Your task to perform on an android device: Open notification settings Image 0: 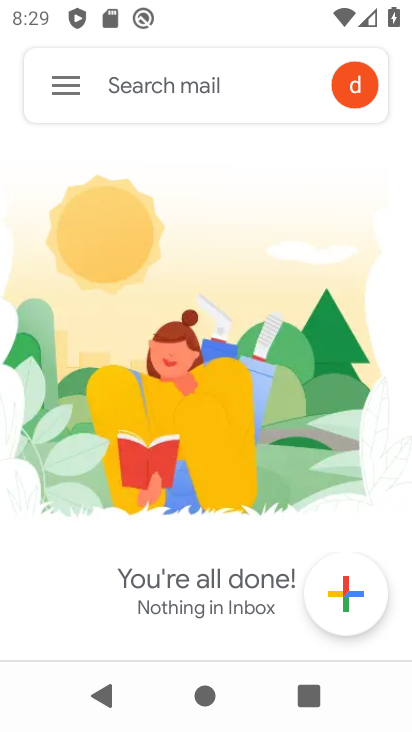
Step 0: press home button
Your task to perform on an android device: Open notification settings Image 1: 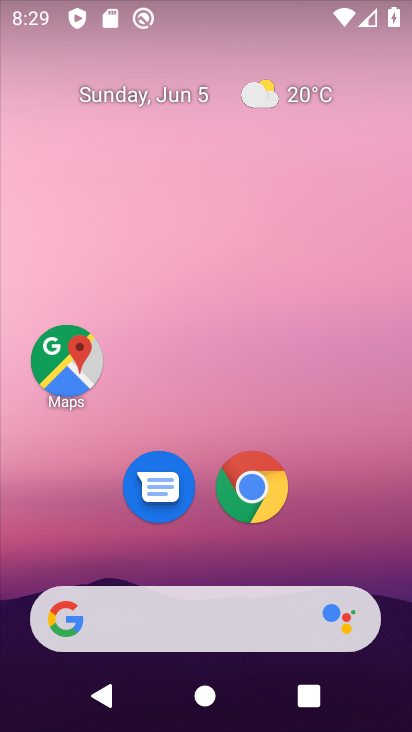
Step 1: drag from (241, 601) to (248, 306)
Your task to perform on an android device: Open notification settings Image 2: 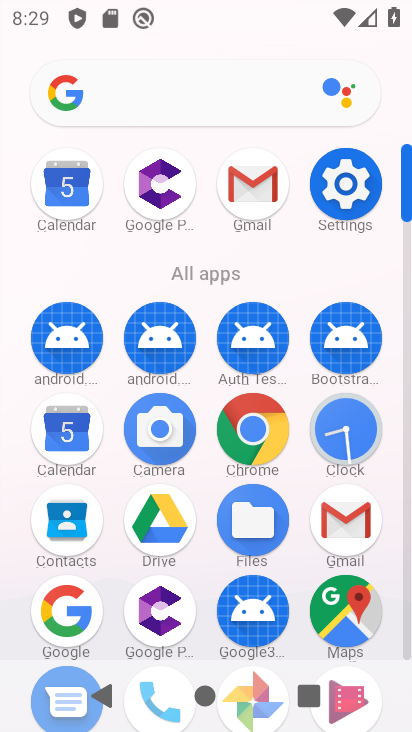
Step 2: click (352, 214)
Your task to perform on an android device: Open notification settings Image 3: 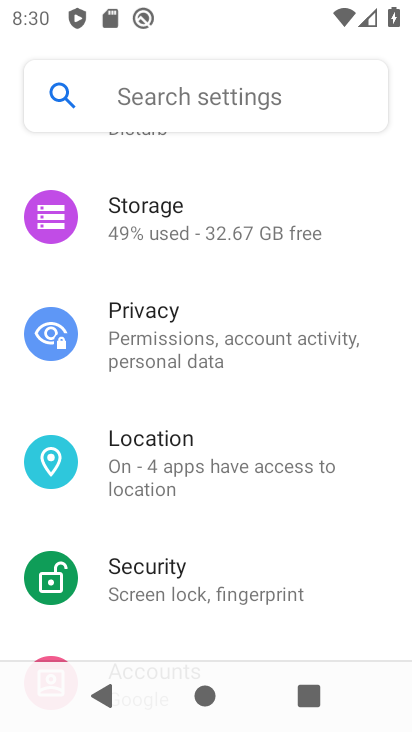
Step 3: drag from (207, 451) to (191, 574)
Your task to perform on an android device: Open notification settings Image 4: 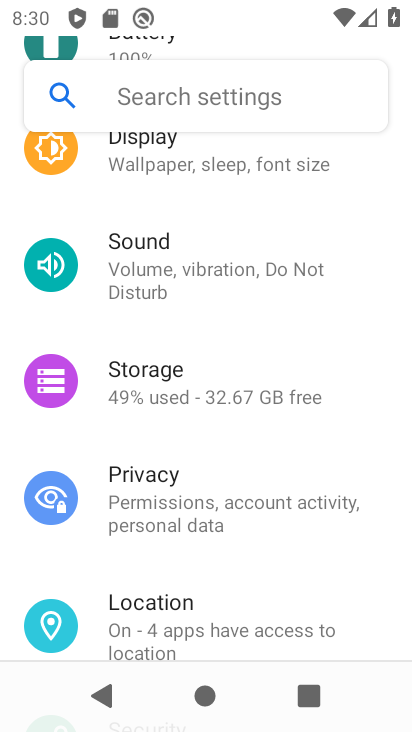
Step 4: drag from (196, 332) to (176, 603)
Your task to perform on an android device: Open notification settings Image 5: 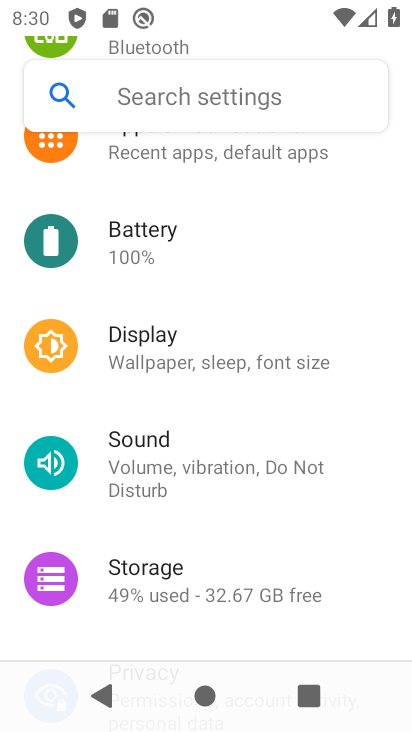
Step 5: drag from (216, 298) to (195, 604)
Your task to perform on an android device: Open notification settings Image 6: 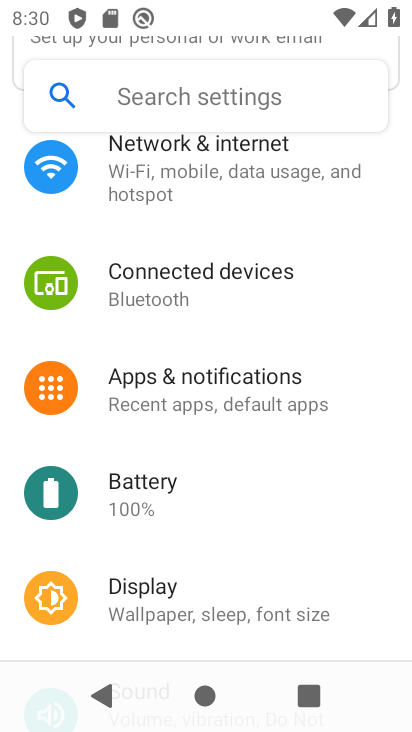
Step 6: click (240, 400)
Your task to perform on an android device: Open notification settings Image 7: 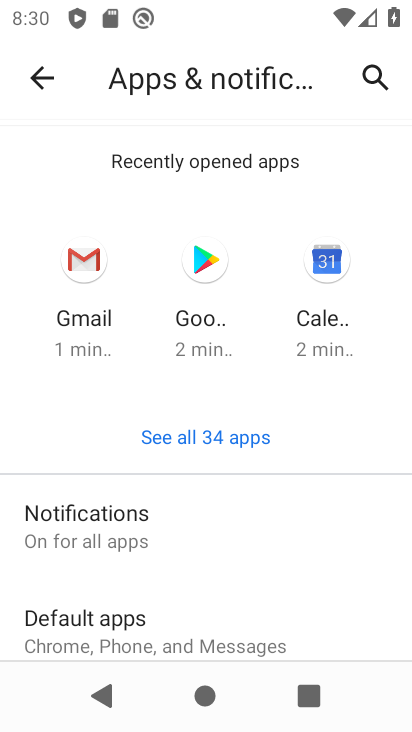
Step 7: click (192, 521)
Your task to perform on an android device: Open notification settings Image 8: 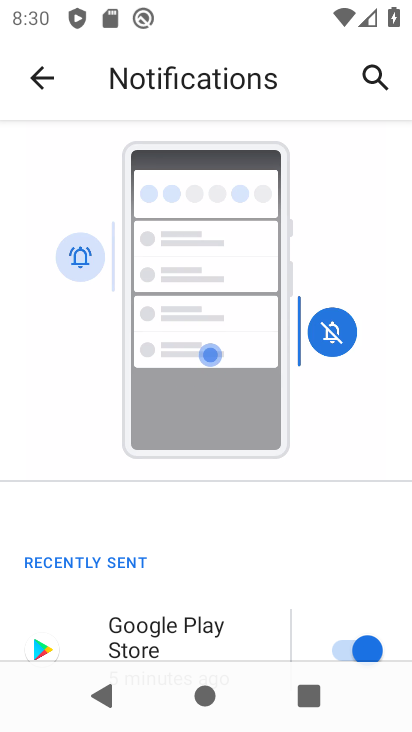
Step 8: task complete